Your task to perform on an android device: turn on notifications settings in the gmail app Image 0: 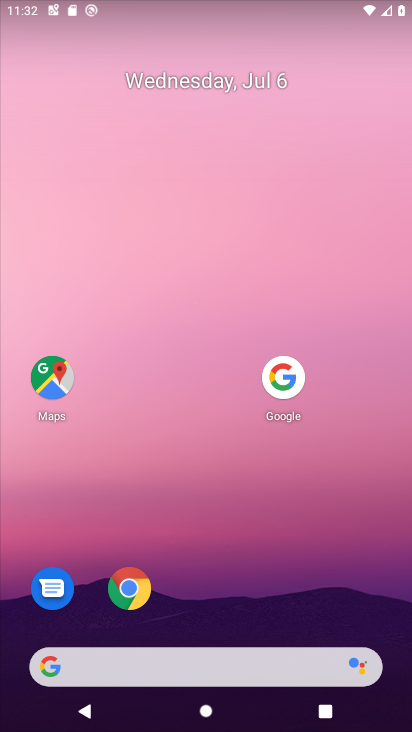
Step 0: drag from (136, 676) to (277, 3)
Your task to perform on an android device: turn on notifications settings in the gmail app Image 1: 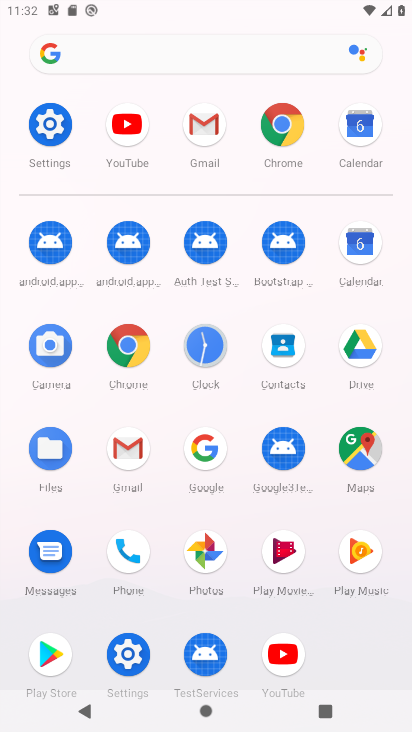
Step 1: click (200, 127)
Your task to perform on an android device: turn on notifications settings in the gmail app Image 2: 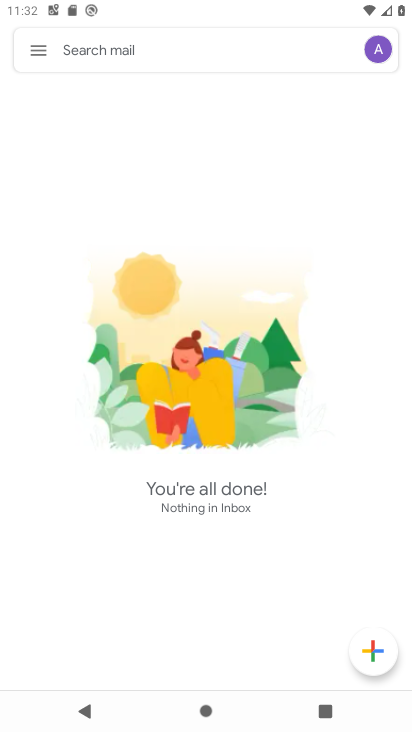
Step 2: click (36, 48)
Your task to perform on an android device: turn on notifications settings in the gmail app Image 3: 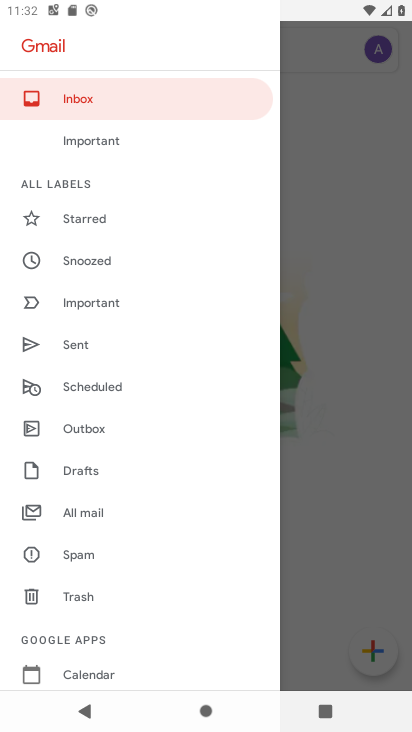
Step 3: drag from (141, 631) to (266, 107)
Your task to perform on an android device: turn on notifications settings in the gmail app Image 4: 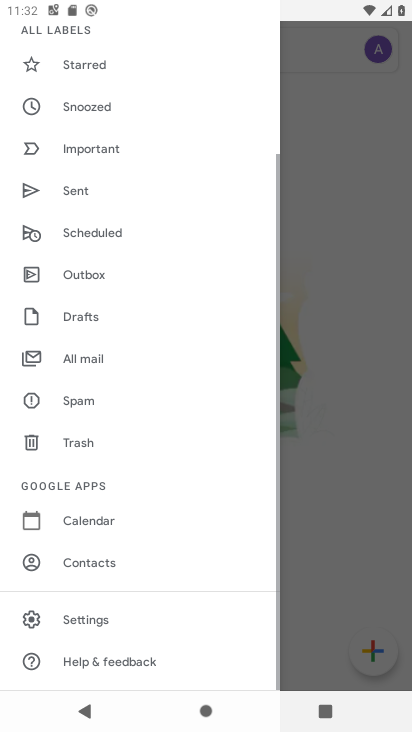
Step 4: click (87, 624)
Your task to perform on an android device: turn on notifications settings in the gmail app Image 5: 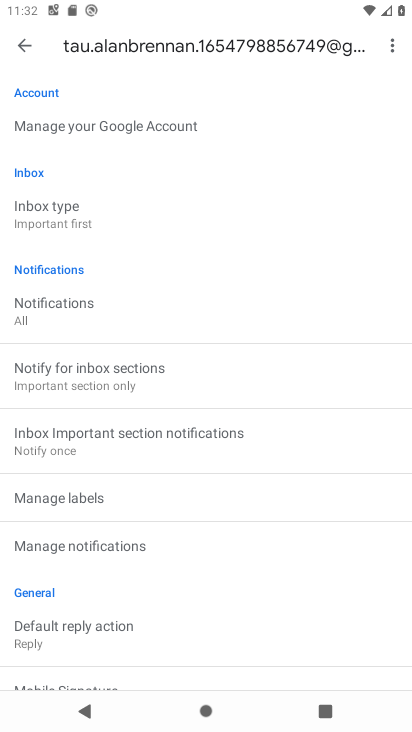
Step 5: click (78, 318)
Your task to perform on an android device: turn on notifications settings in the gmail app Image 6: 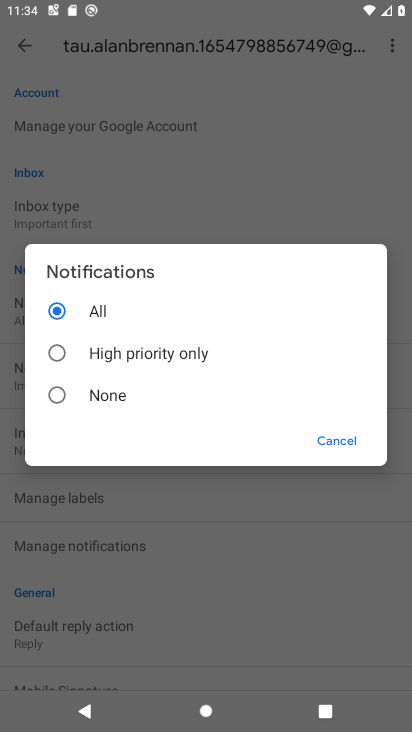
Step 6: task complete